Your task to perform on an android device: set an alarm Image 0: 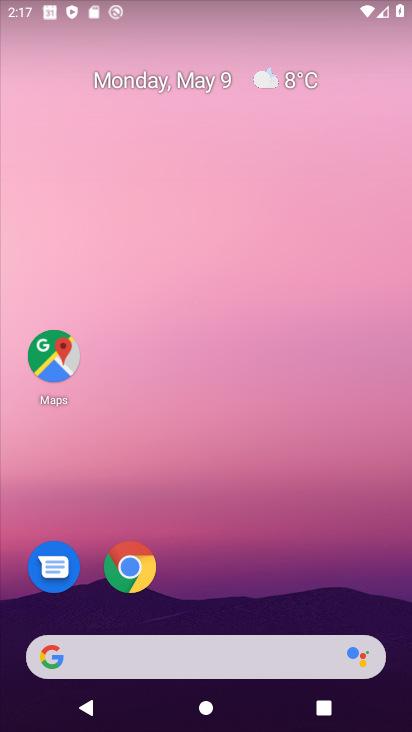
Step 0: drag from (212, 537) to (195, 209)
Your task to perform on an android device: set an alarm Image 1: 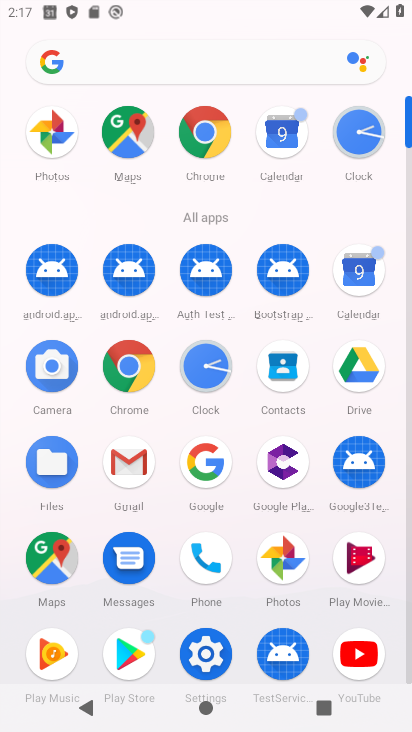
Step 1: click (200, 379)
Your task to perform on an android device: set an alarm Image 2: 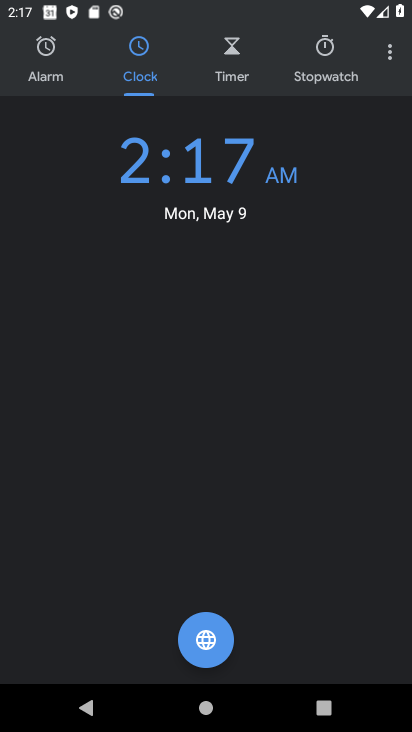
Step 2: click (47, 58)
Your task to perform on an android device: set an alarm Image 3: 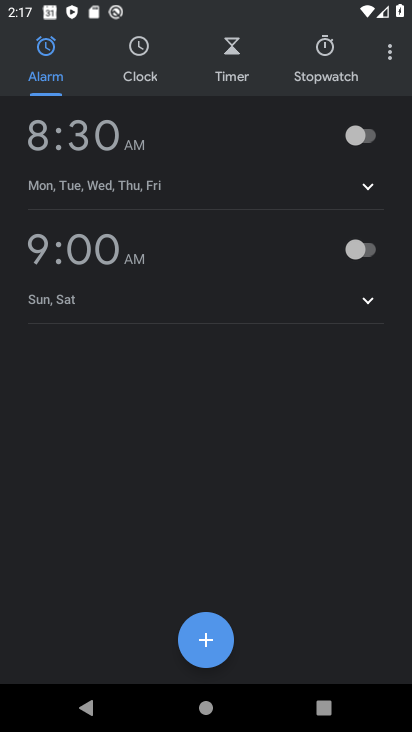
Step 3: click (379, 124)
Your task to perform on an android device: set an alarm Image 4: 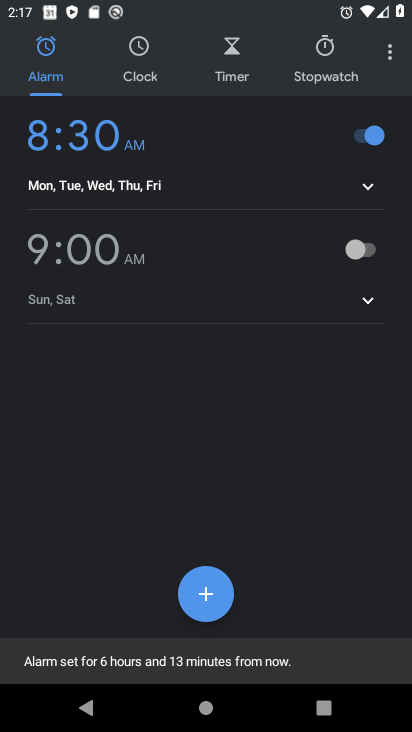
Step 4: click (367, 184)
Your task to perform on an android device: set an alarm Image 5: 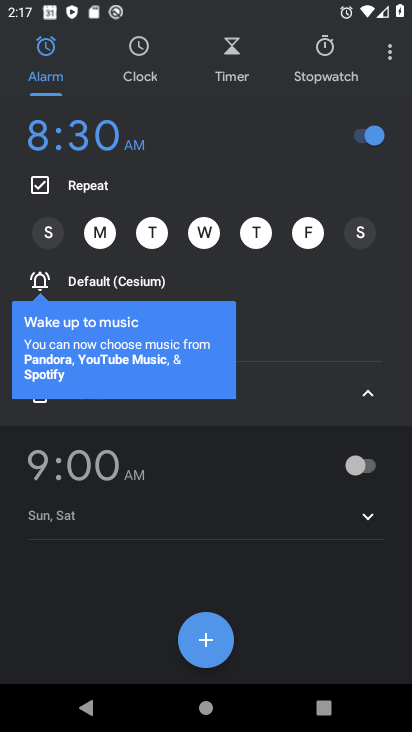
Step 5: click (35, 232)
Your task to perform on an android device: set an alarm Image 6: 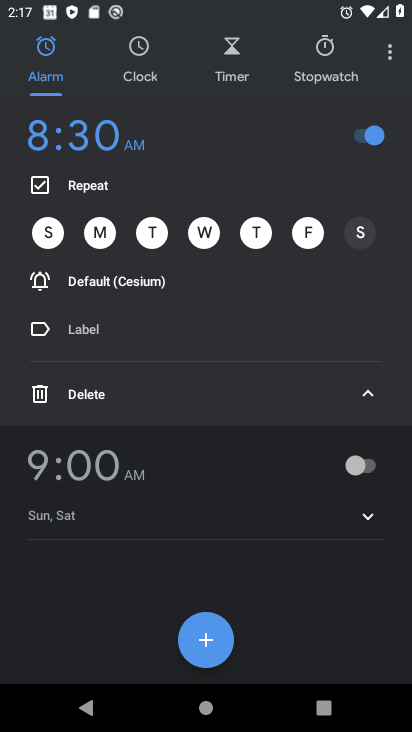
Step 6: click (363, 235)
Your task to perform on an android device: set an alarm Image 7: 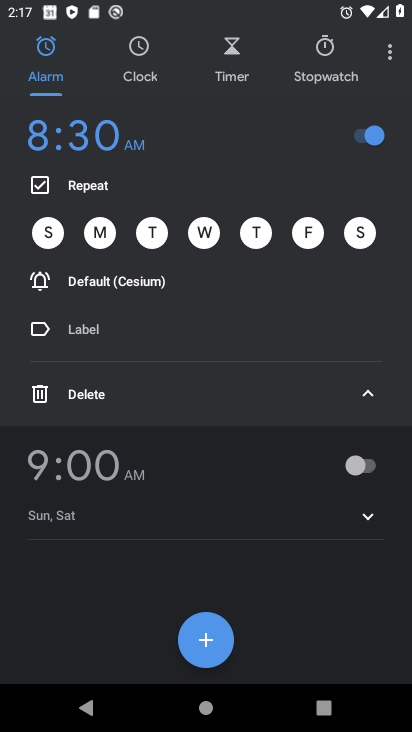
Step 7: click (359, 396)
Your task to perform on an android device: set an alarm Image 8: 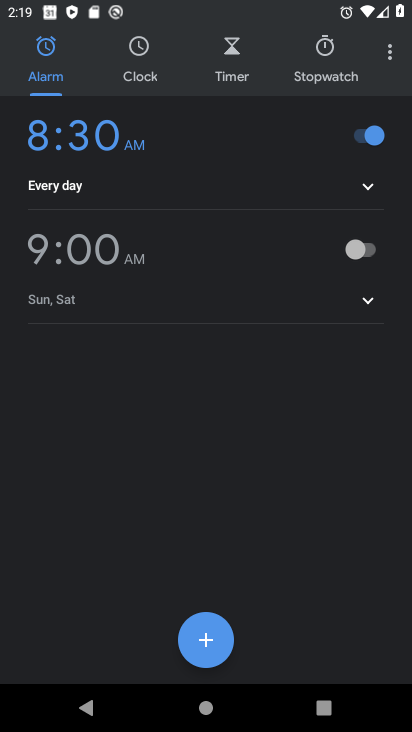
Step 8: task complete